Your task to perform on an android device: refresh tabs in the chrome app Image 0: 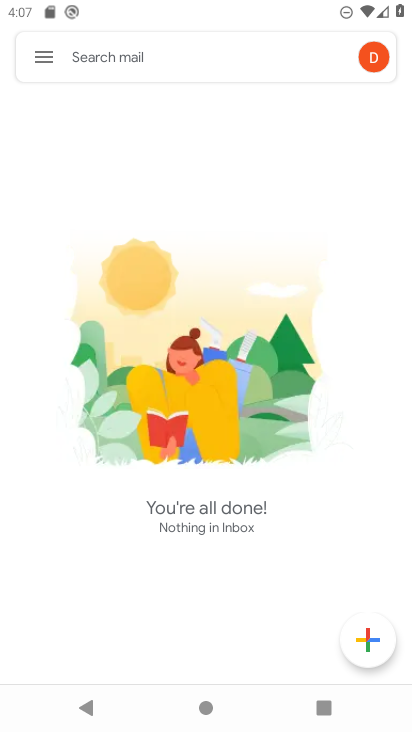
Step 0: press home button
Your task to perform on an android device: refresh tabs in the chrome app Image 1: 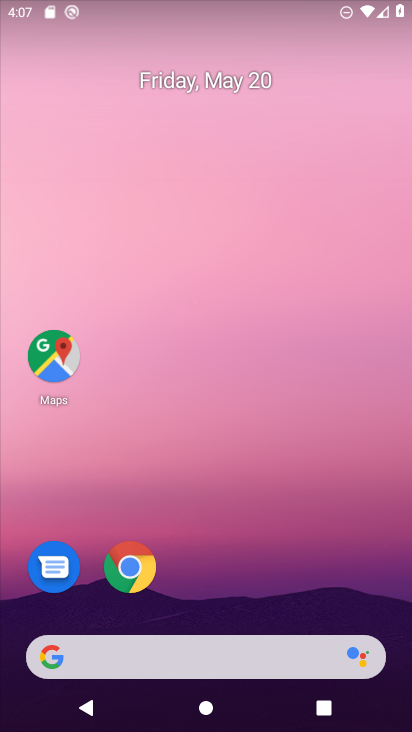
Step 1: click (136, 563)
Your task to perform on an android device: refresh tabs in the chrome app Image 2: 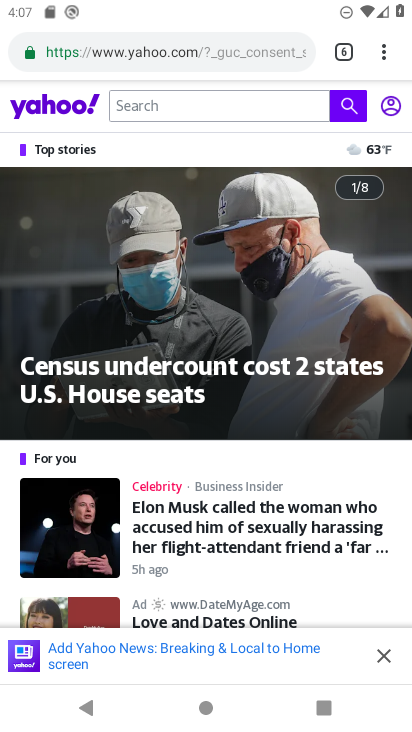
Step 2: click (381, 55)
Your task to perform on an android device: refresh tabs in the chrome app Image 3: 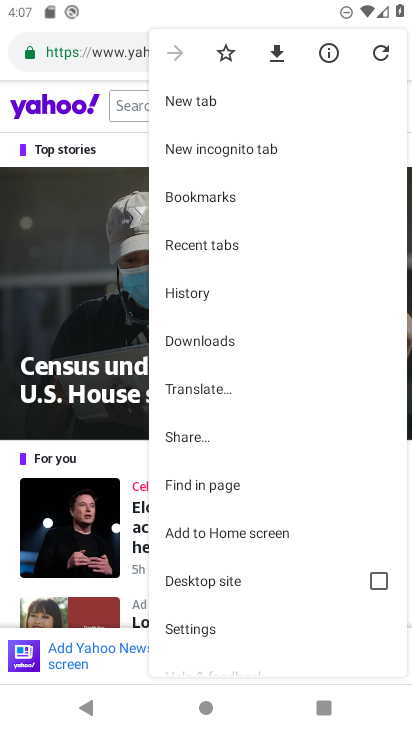
Step 3: click (385, 46)
Your task to perform on an android device: refresh tabs in the chrome app Image 4: 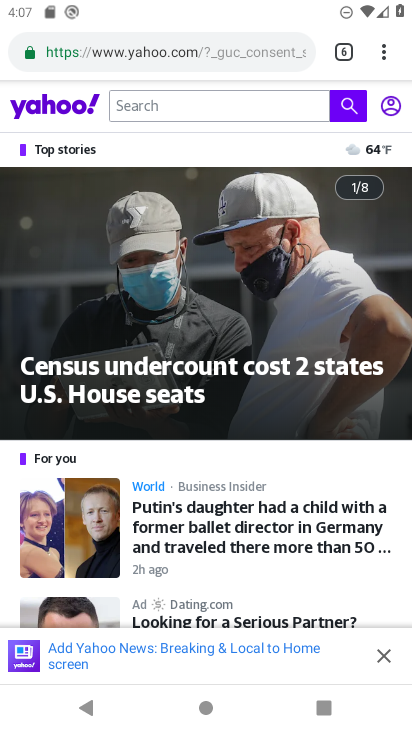
Step 4: task complete